Your task to perform on an android device: Go to Google maps Image 0: 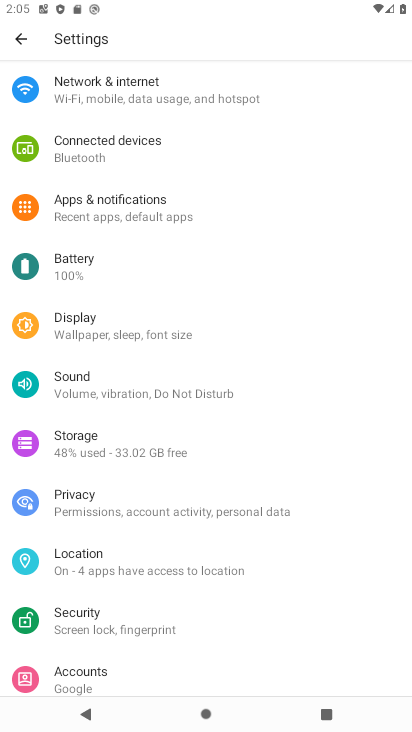
Step 0: press back button
Your task to perform on an android device: Go to Google maps Image 1: 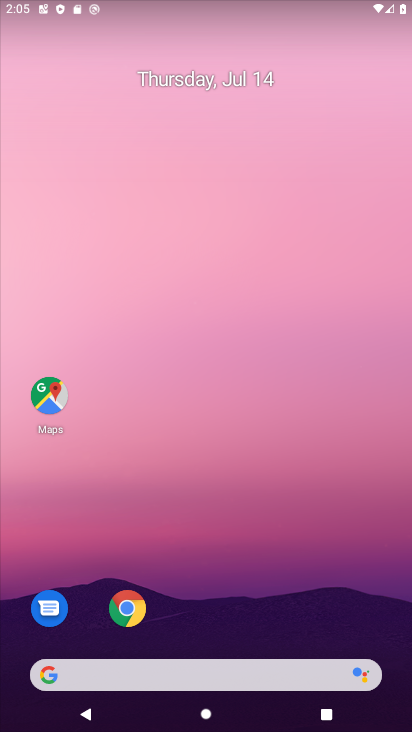
Step 1: click (49, 400)
Your task to perform on an android device: Go to Google maps Image 2: 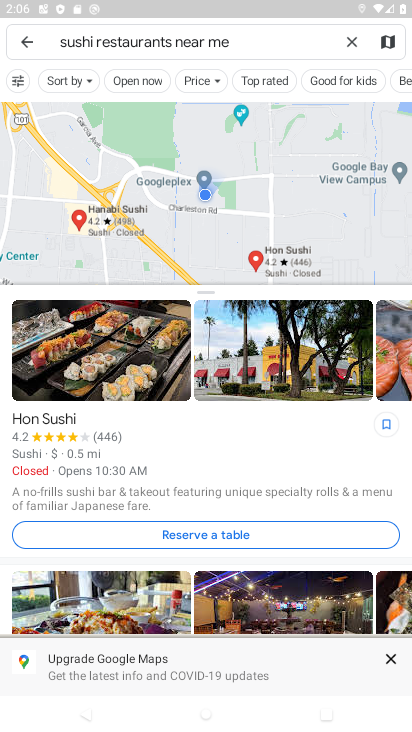
Step 2: task complete